Your task to perform on an android device: toggle pop-ups in chrome Image 0: 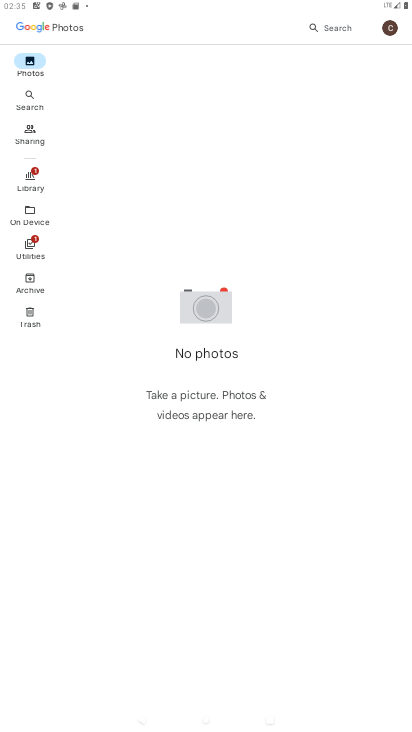
Step 0: press home button
Your task to perform on an android device: toggle pop-ups in chrome Image 1: 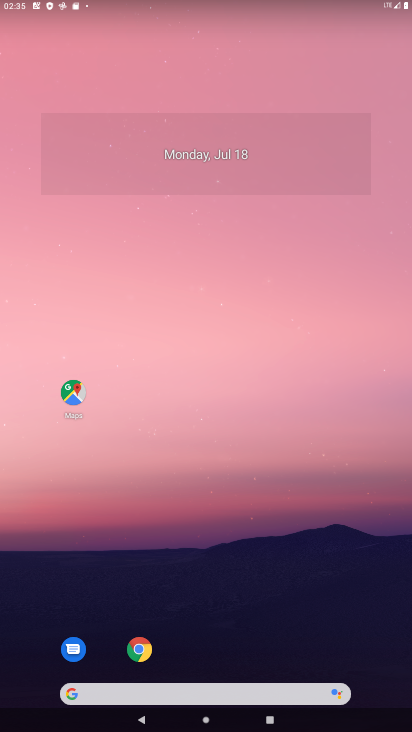
Step 1: click (147, 650)
Your task to perform on an android device: toggle pop-ups in chrome Image 2: 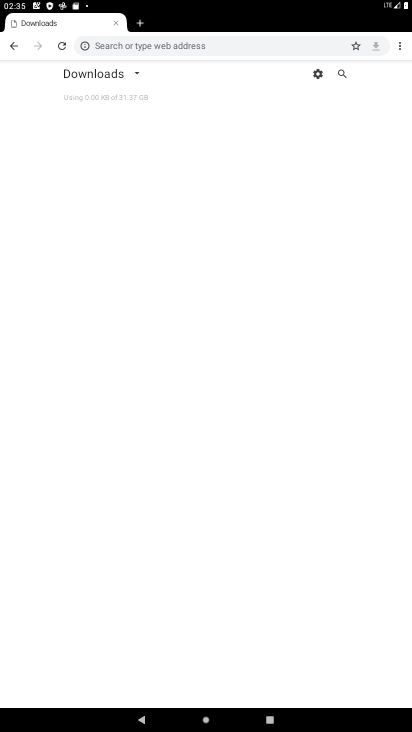
Step 2: click (400, 44)
Your task to perform on an android device: toggle pop-ups in chrome Image 3: 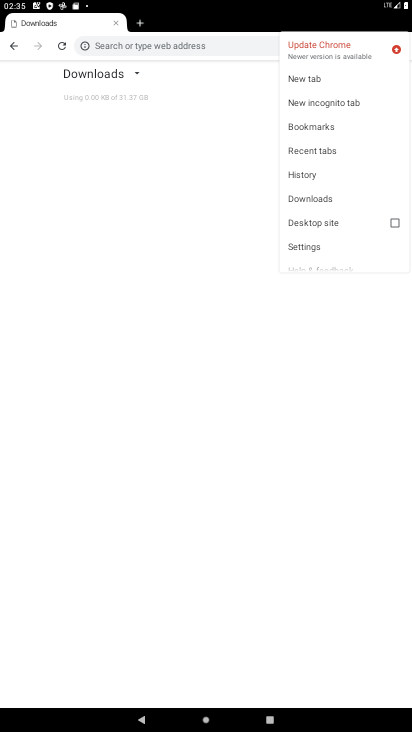
Step 3: click (301, 248)
Your task to perform on an android device: toggle pop-ups in chrome Image 4: 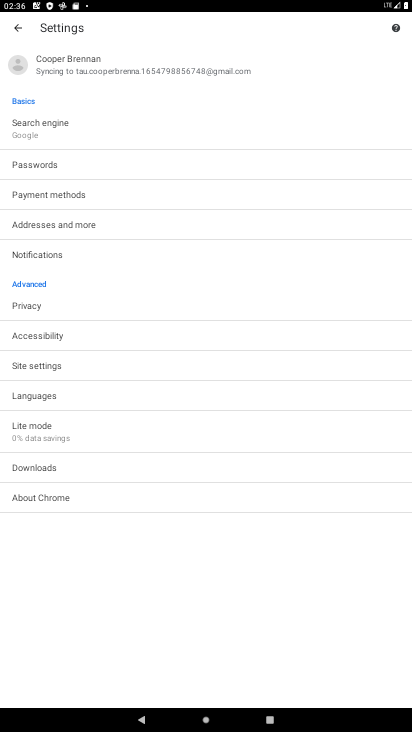
Step 4: click (75, 370)
Your task to perform on an android device: toggle pop-ups in chrome Image 5: 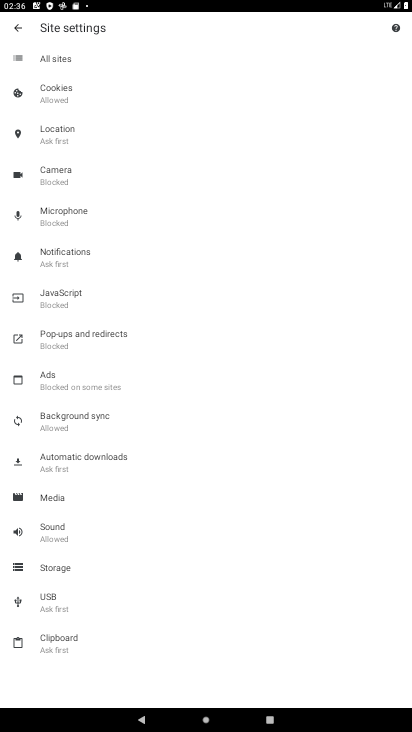
Step 5: click (84, 339)
Your task to perform on an android device: toggle pop-ups in chrome Image 6: 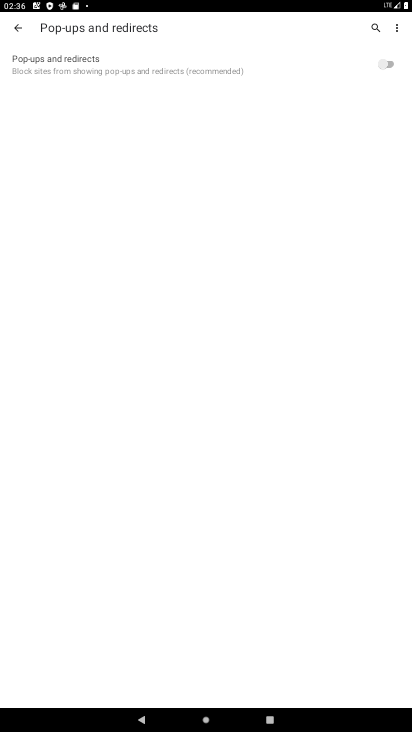
Step 6: click (391, 59)
Your task to perform on an android device: toggle pop-ups in chrome Image 7: 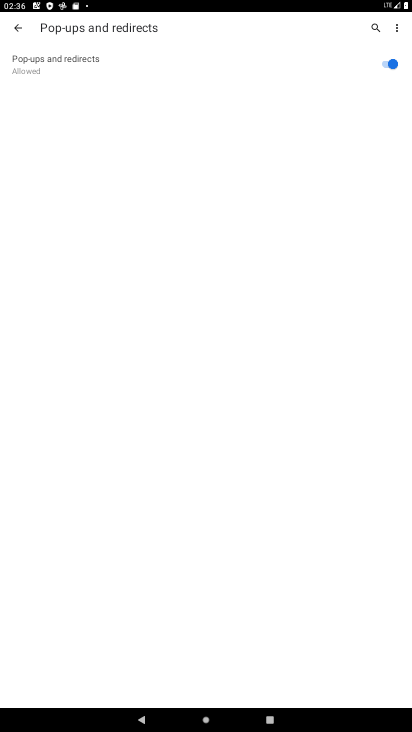
Step 7: task complete